Your task to perform on an android device: Open privacy settings Image 0: 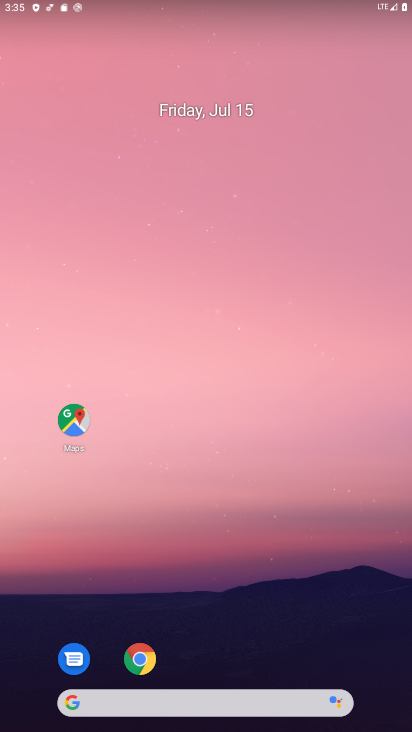
Step 0: drag from (181, 607) to (198, 143)
Your task to perform on an android device: Open privacy settings Image 1: 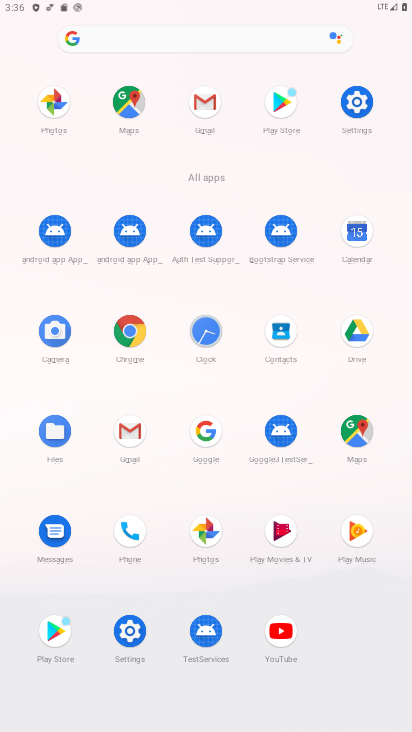
Step 1: click (351, 106)
Your task to perform on an android device: Open privacy settings Image 2: 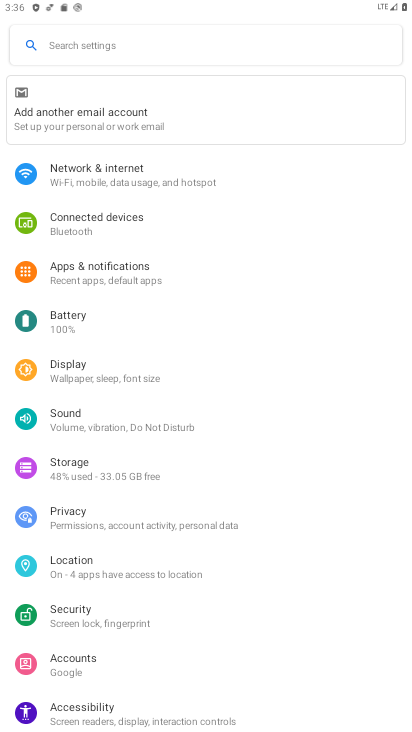
Step 2: click (76, 510)
Your task to perform on an android device: Open privacy settings Image 3: 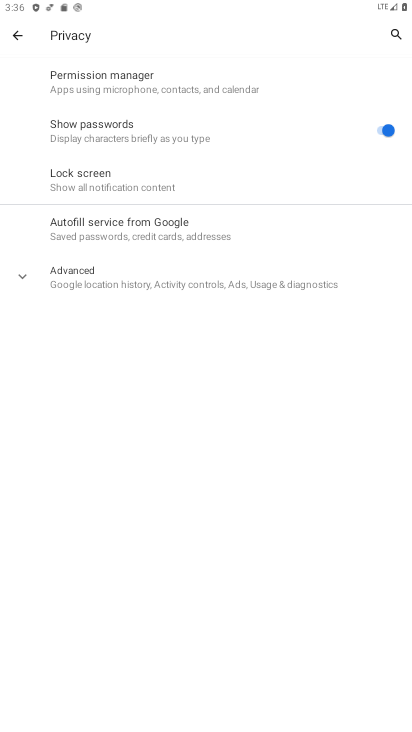
Step 3: task complete